Your task to perform on an android device: Check the weather Image 0: 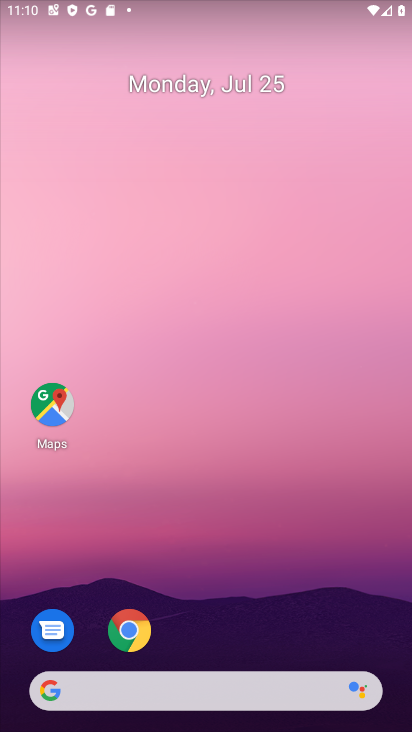
Step 0: click (94, 689)
Your task to perform on an android device: Check the weather Image 1: 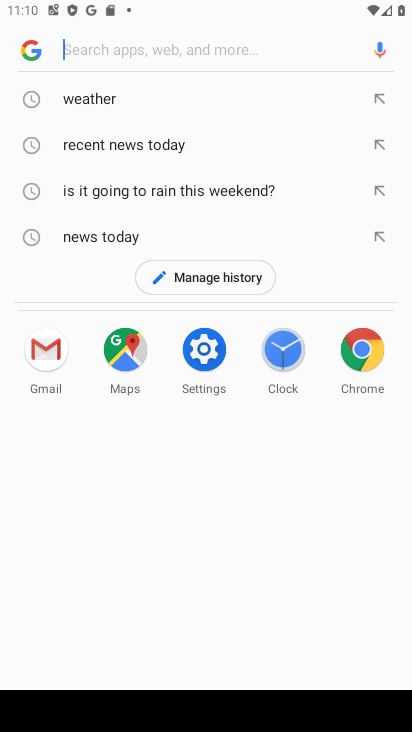
Step 1: click (65, 103)
Your task to perform on an android device: Check the weather Image 2: 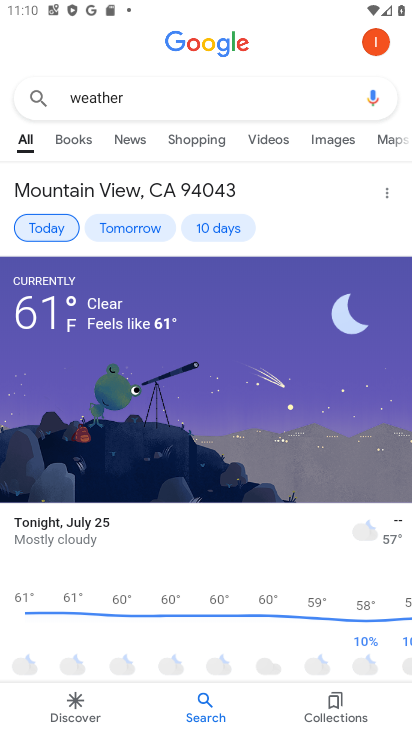
Step 2: task complete